Your task to perform on an android device: change the clock display to digital Image 0: 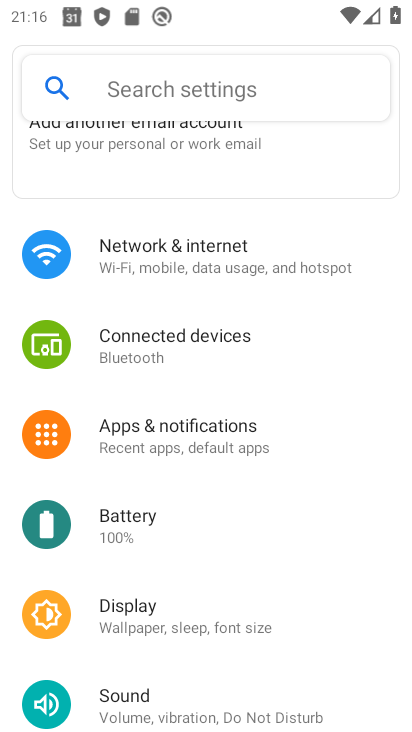
Step 0: press home button
Your task to perform on an android device: change the clock display to digital Image 1: 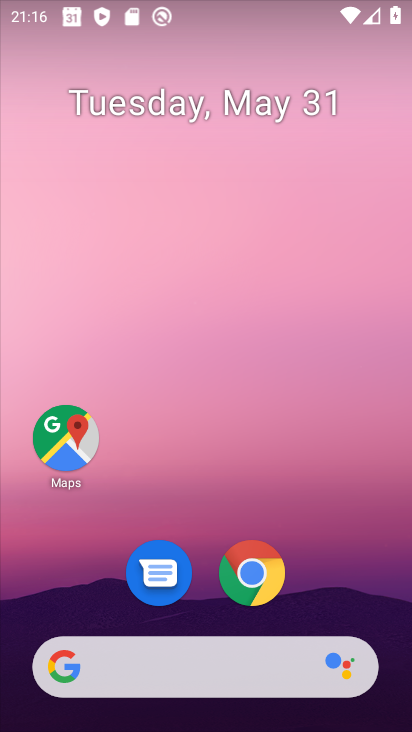
Step 1: drag from (360, 531) to (197, 9)
Your task to perform on an android device: change the clock display to digital Image 2: 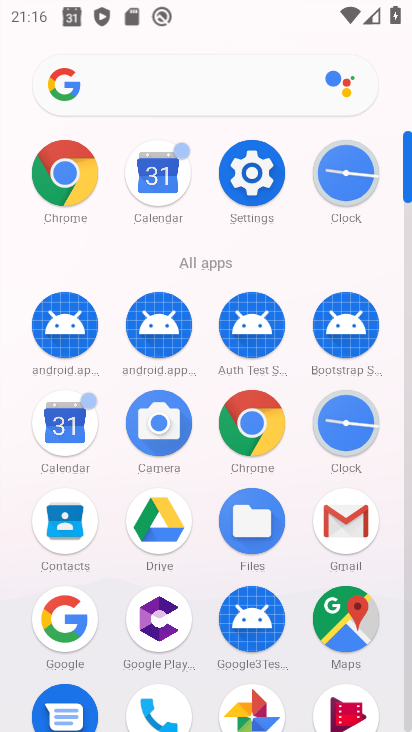
Step 2: click (337, 240)
Your task to perform on an android device: change the clock display to digital Image 3: 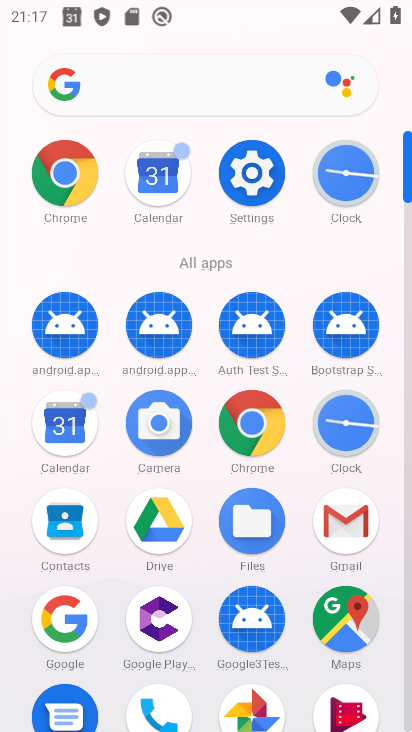
Step 3: click (345, 205)
Your task to perform on an android device: change the clock display to digital Image 4: 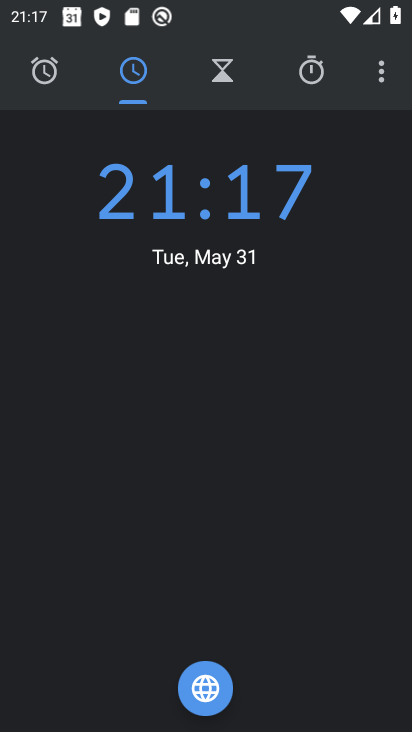
Step 4: click (389, 69)
Your task to perform on an android device: change the clock display to digital Image 5: 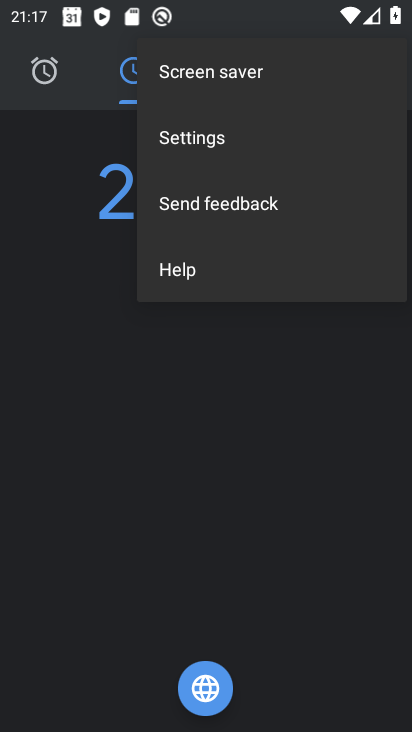
Step 5: click (211, 130)
Your task to perform on an android device: change the clock display to digital Image 6: 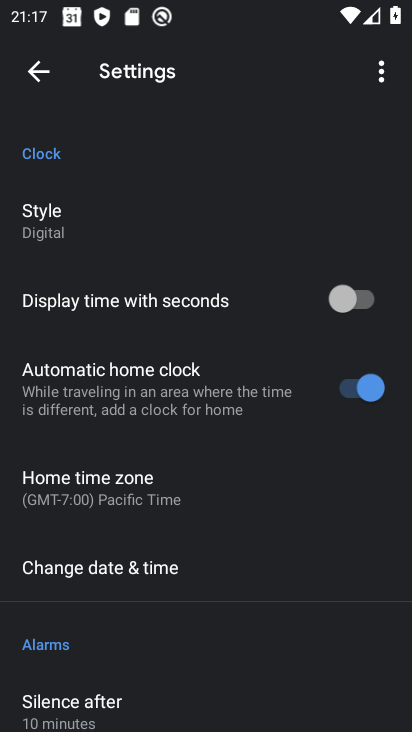
Step 6: task complete